Your task to perform on an android device: change the clock display to digital Image 0: 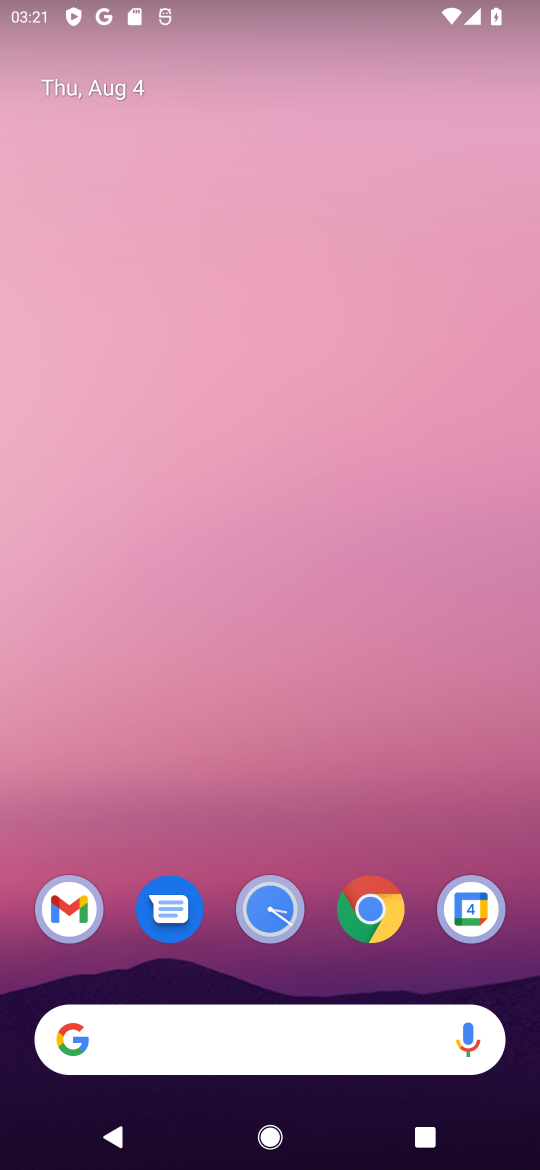
Step 0: click (270, 912)
Your task to perform on an android device: change the clock display to digital Image 1: 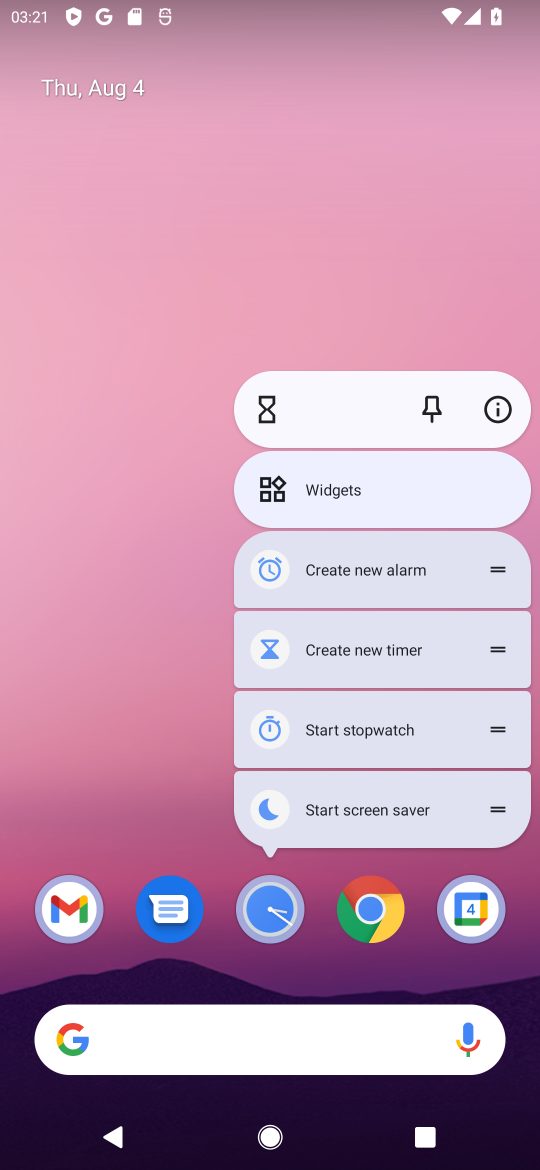
Step 1: click (267, 916)
Your task to perform on an android device: change the clock display to digital Image 2: 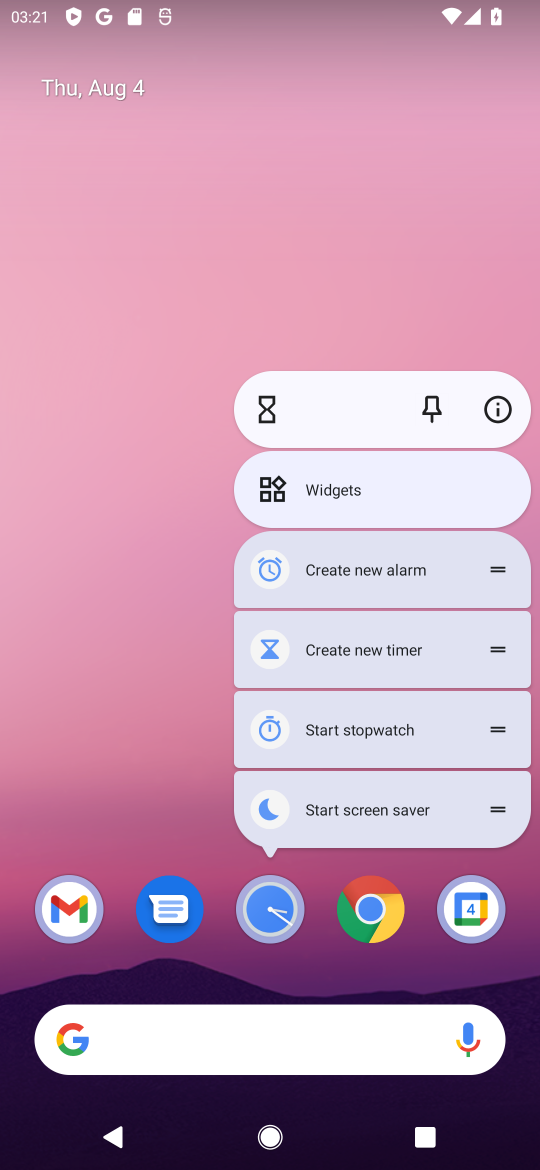
Step 2: click (267, 916)
Your task to perform on an android device: change the clock display to digital Image 3: 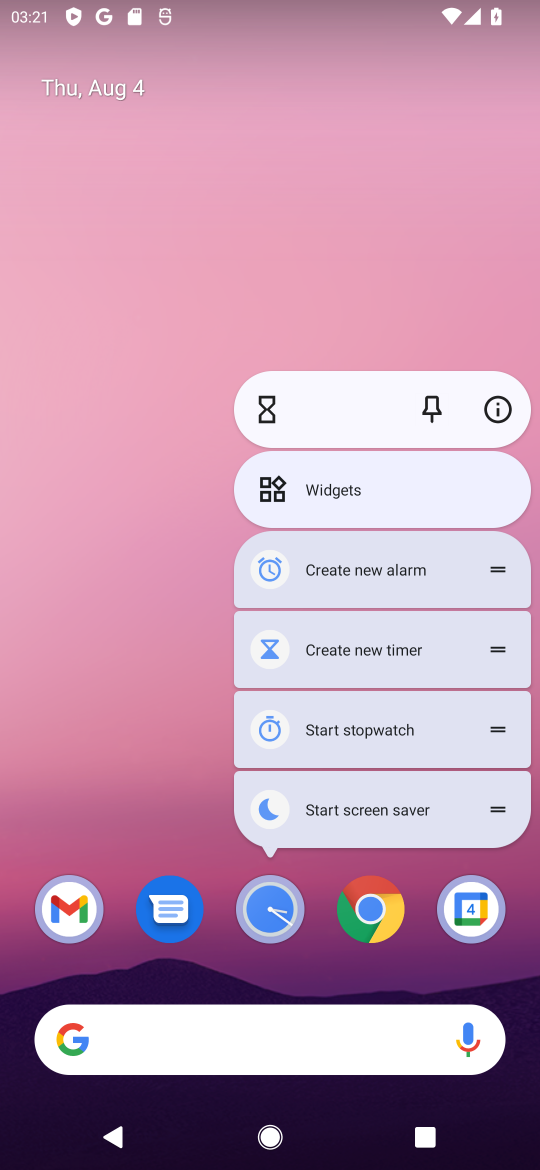
Step 3: click (268, 905)
Your task to perform on an android device: change the clock display to digital Image 4: 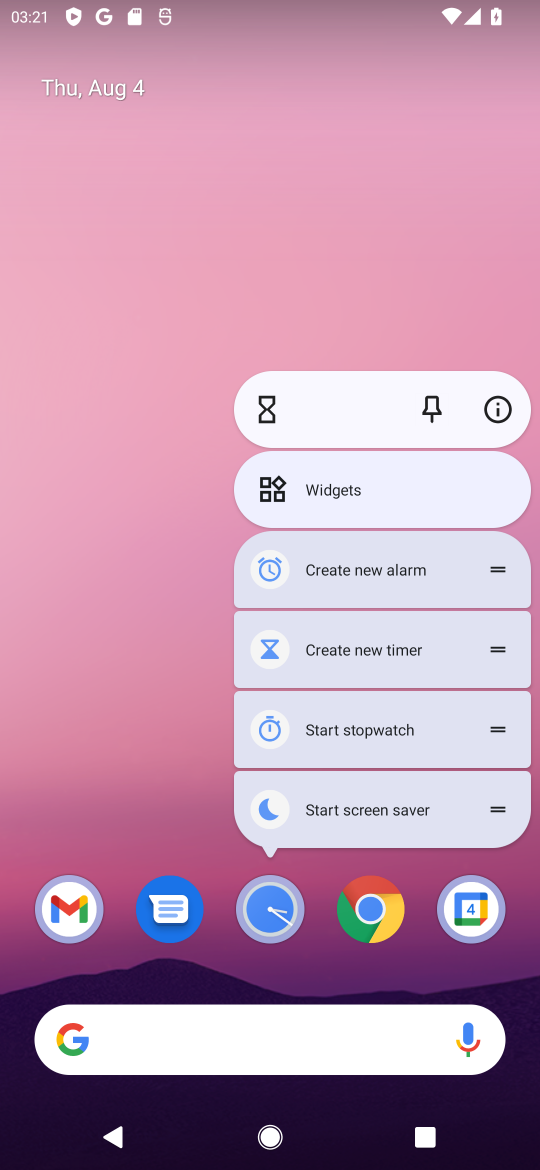
Step 4: click (261, 915)
Your task to perform on an android device: change the clock display to digital Image 5: 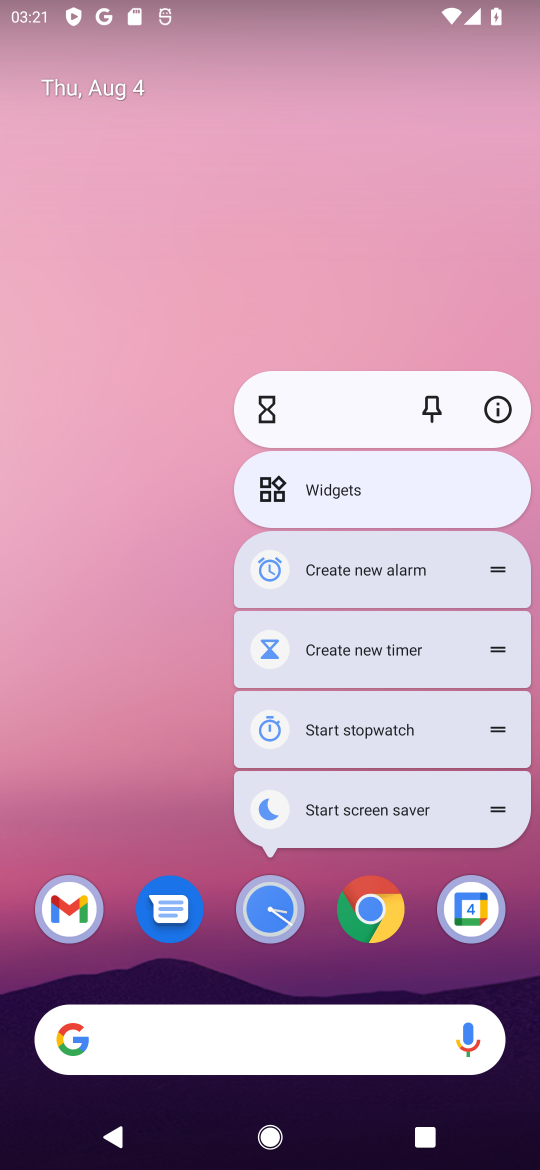
Step 5: click (278, 905)
Your task to perform on an android device: change the clock display to digital Image 6: 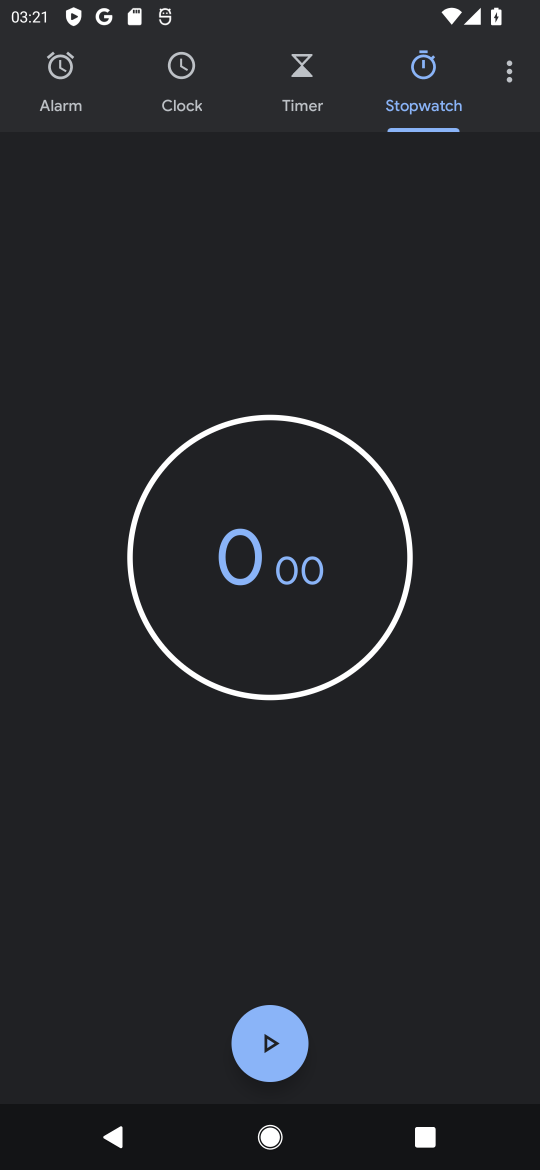
Step 6: click (512, 75)
Your task to perform on an android device: change the clock display to digital Image 7: 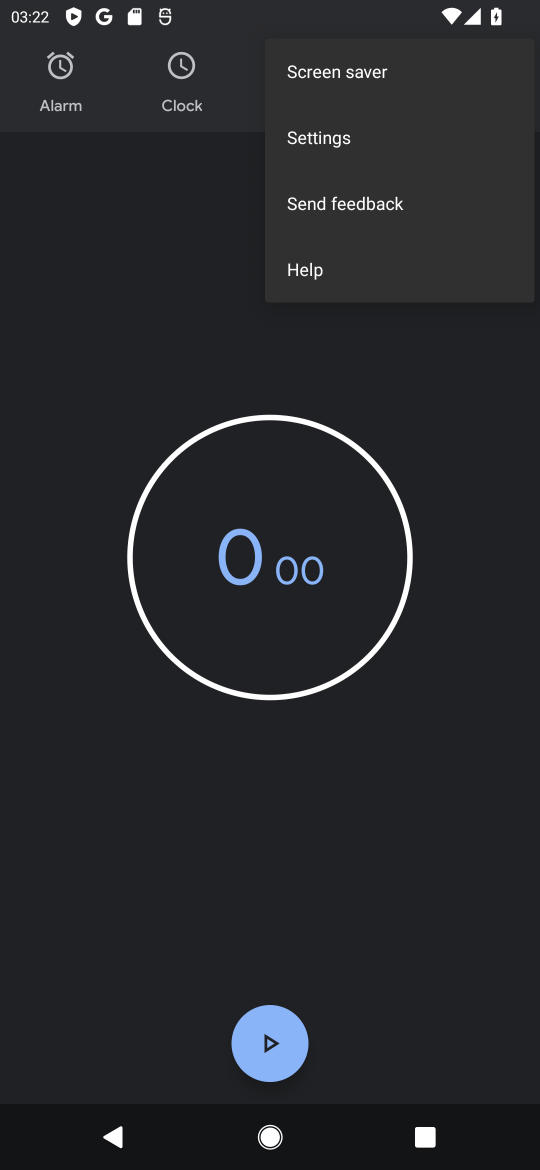
Step 7: click (326, 143)
Your task to perform on an android device: change the clock display to digital Image 8: 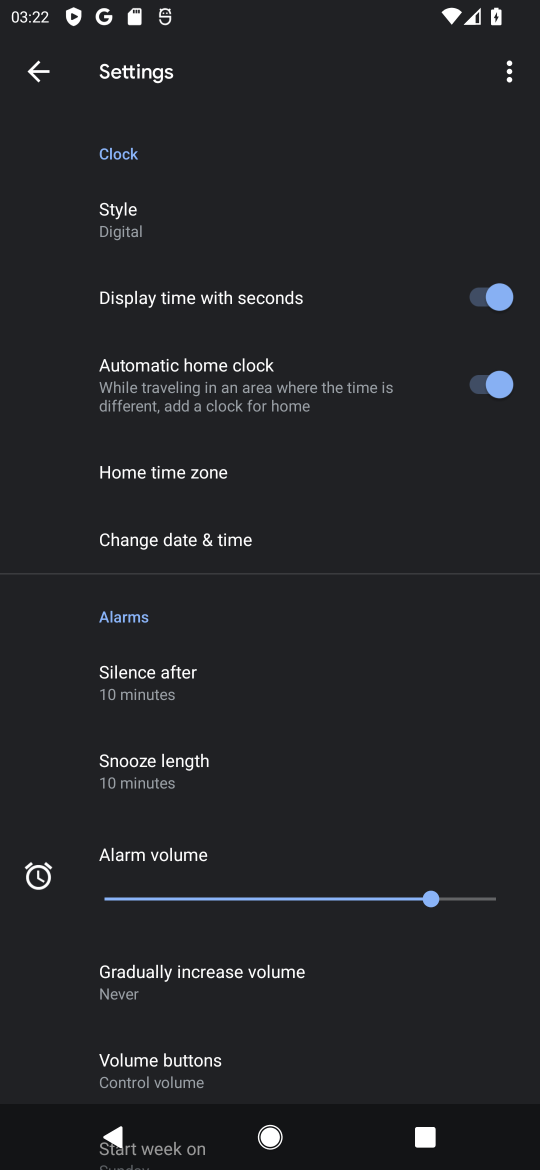
Step 8: click (113, 242)
Your task to perform on an android device: change the clock display to digital Image 9: 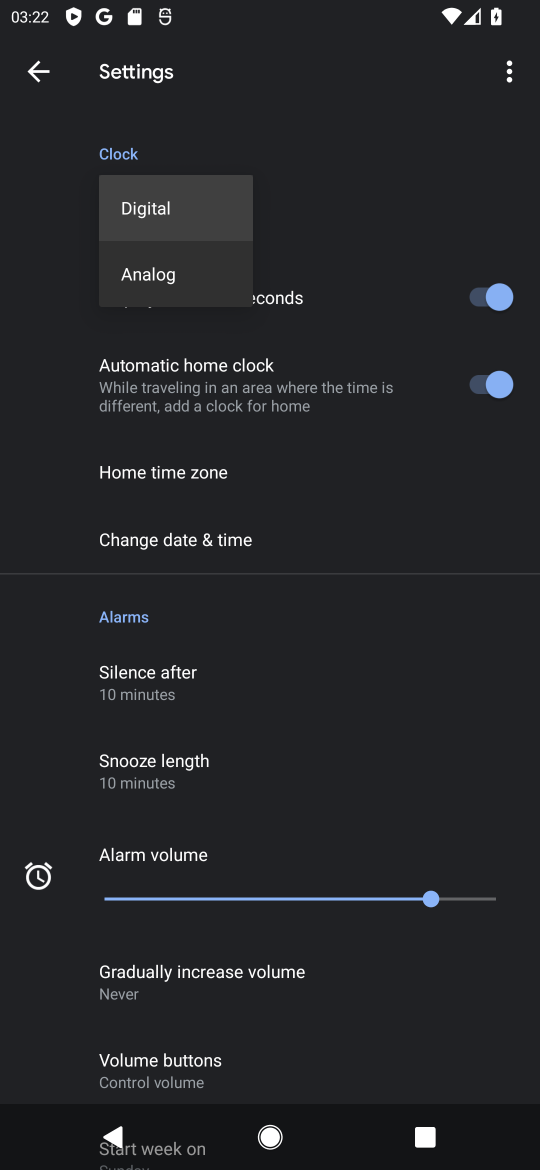
Step 9: task complete